Your task to perform on an android device: Clear all items from cart on bestbuy. Image 0: 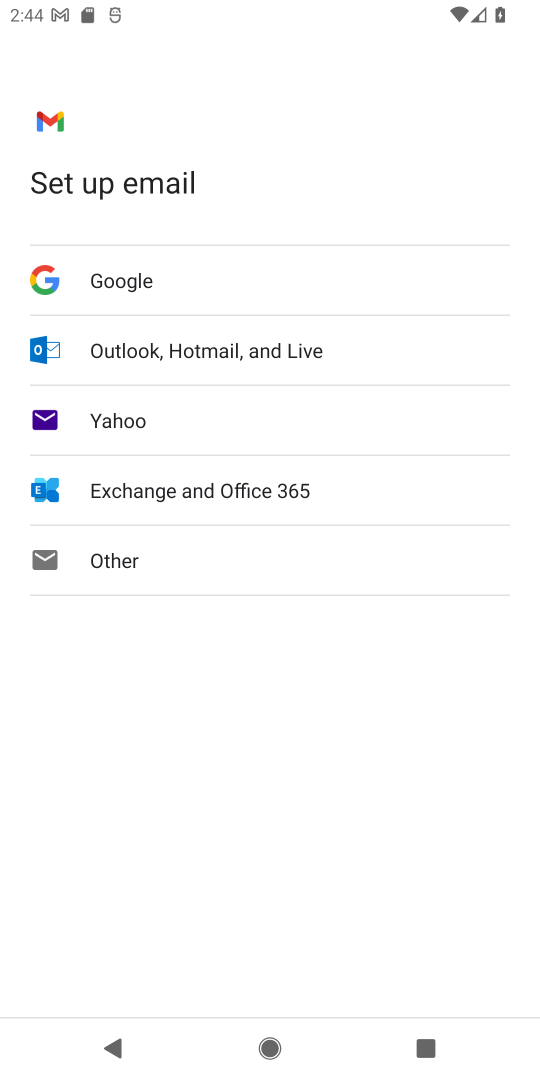
Step 0: press home button
Your task to perform on an android device: Clear all items from cart on bestbuy. Image 1: 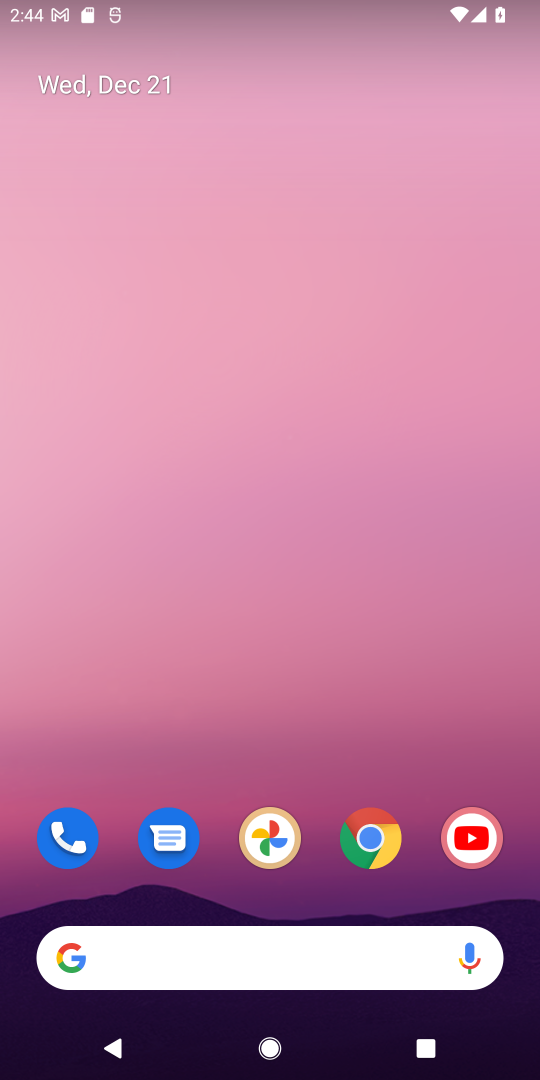
Step 1: click (381, 865)
Your task to perform on an android device: Clear all items from cart on bestbuy. Image 2: 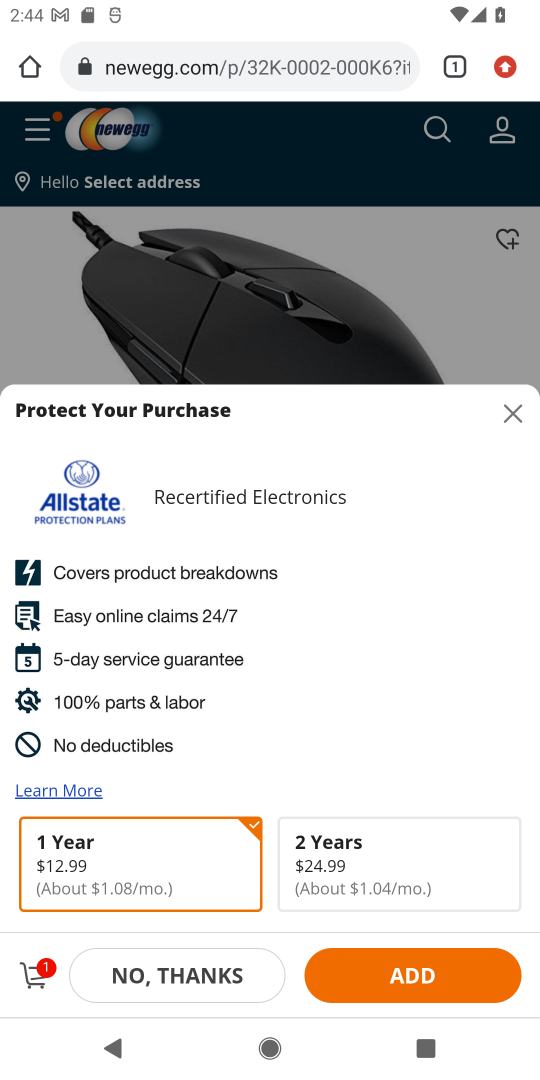
Step 2: click (240, 56)
Your task to perform on an android device: Clear all items from cart on bestbuy. Image 3: 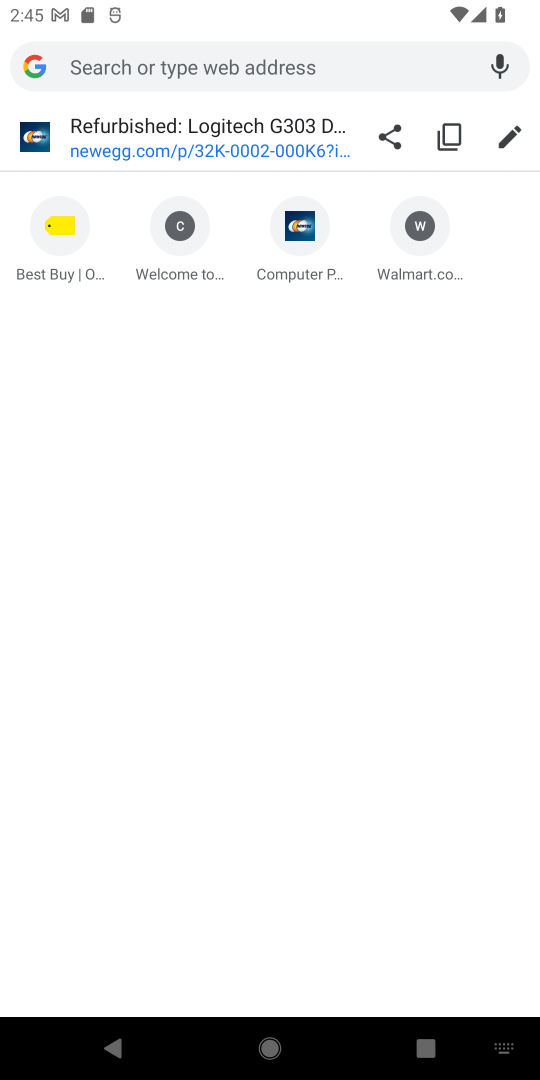
Step 3: type "bestbuy"
Your task to perform on an android device: Clear all items from cart on bestbuy. Image 4: 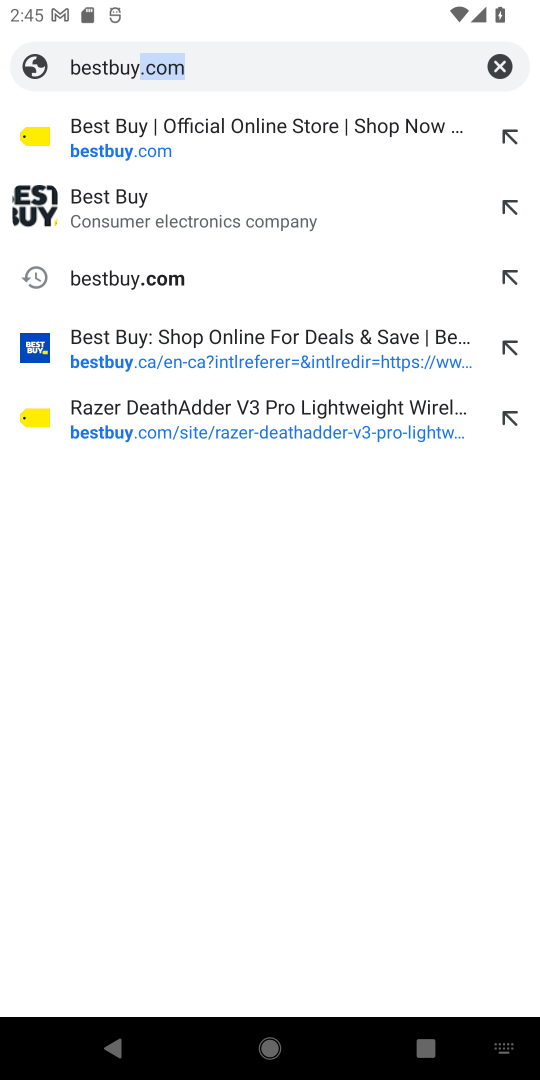
Step 4: click (281, 156)
Your task to perform on an android device: Clear all items from cart on bestbuy. Image 5: 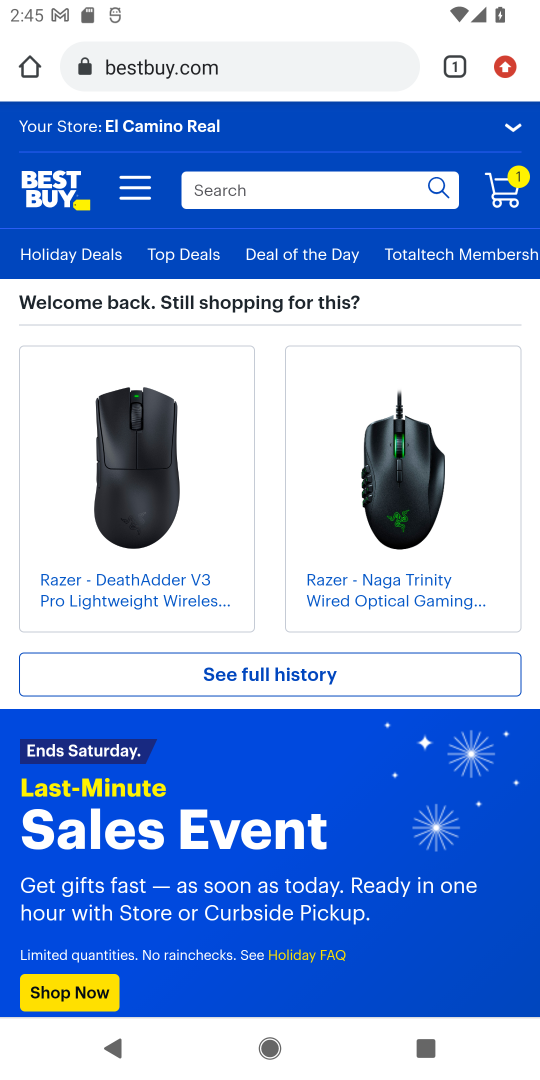
Step 5: click (255, 198)
Your task to perform on an android device: Clear all items from cart on bestbuy. Image 6: 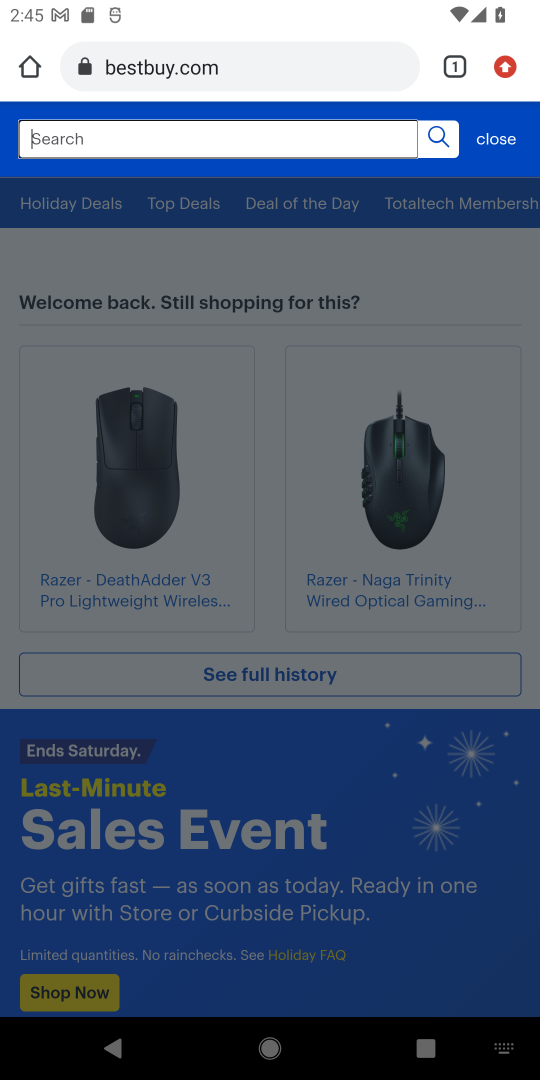
Step 6: click (499, 150)
Your task to perform on an android device: Clear all items from cart on bestbuy. Image 7: 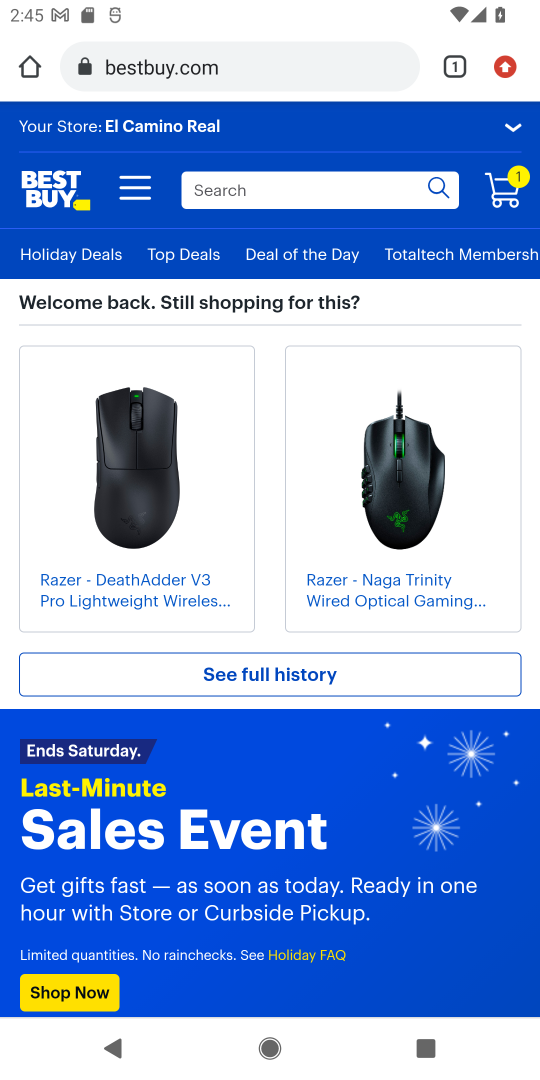
Step 7: click (523, 186)
Your task to perform on an android device: Clear all items from cart on bestbuy. Image 8: 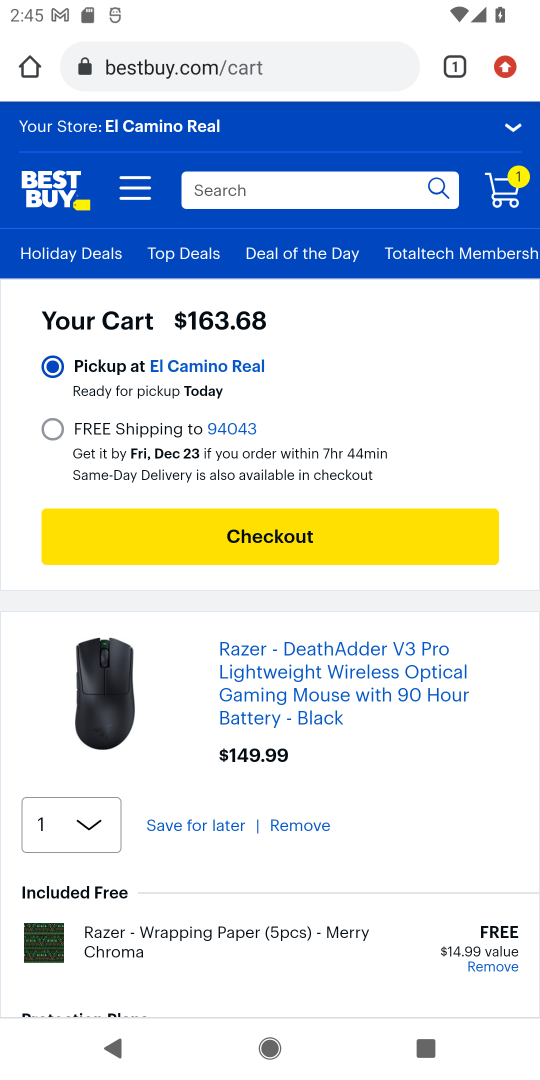
Step 8: click (283, 823)
Your task to perform on an android device: Clear all items from cart on bestbuy. Image 9: 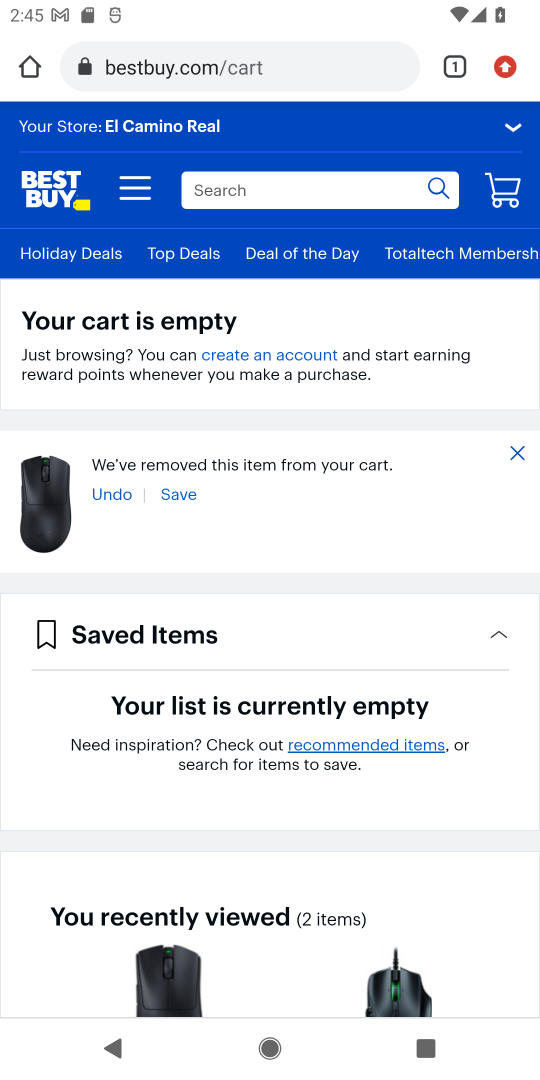
Step 9: task complete